Your task to perform on an android device: snooze an email in the gmail app Image 0: 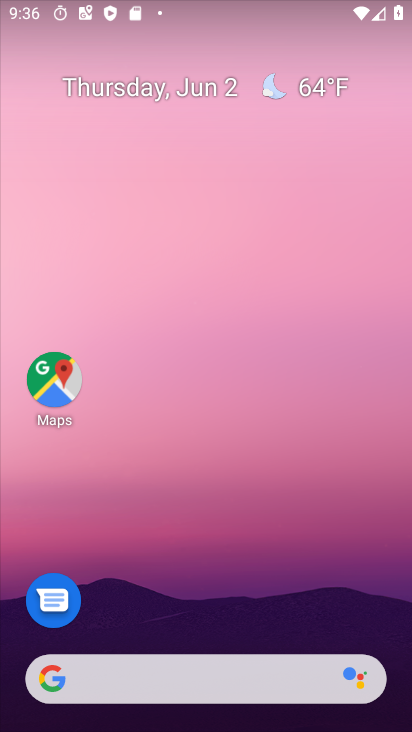
Step 0: drag from (210, 573) to (219, 91)
Your task to perform on an android device: snooze an email in the gmail app Image 1: 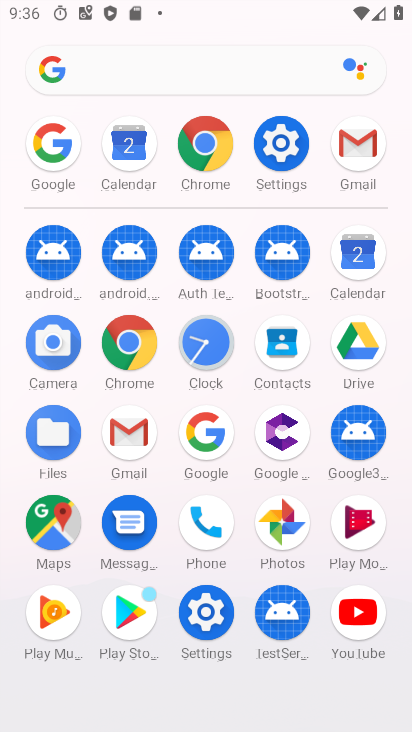
Step 1: click (130, 429)
Your task to perform on an android device: snooze an email in the gmail app Image 2: 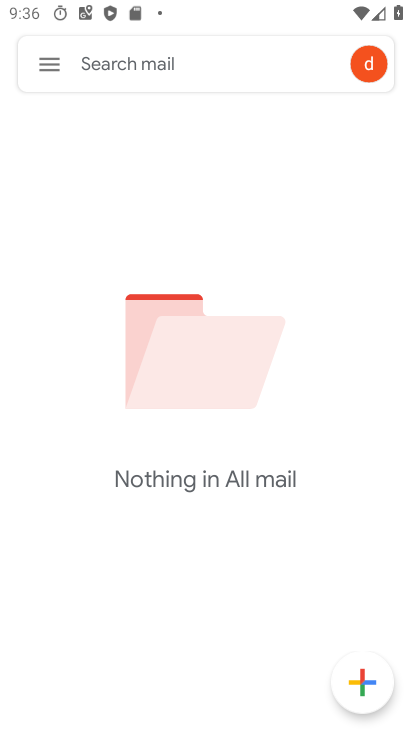
Step 2: task complete